Your task to perform on an android device: Show me popular videos on Youtube Image 0: 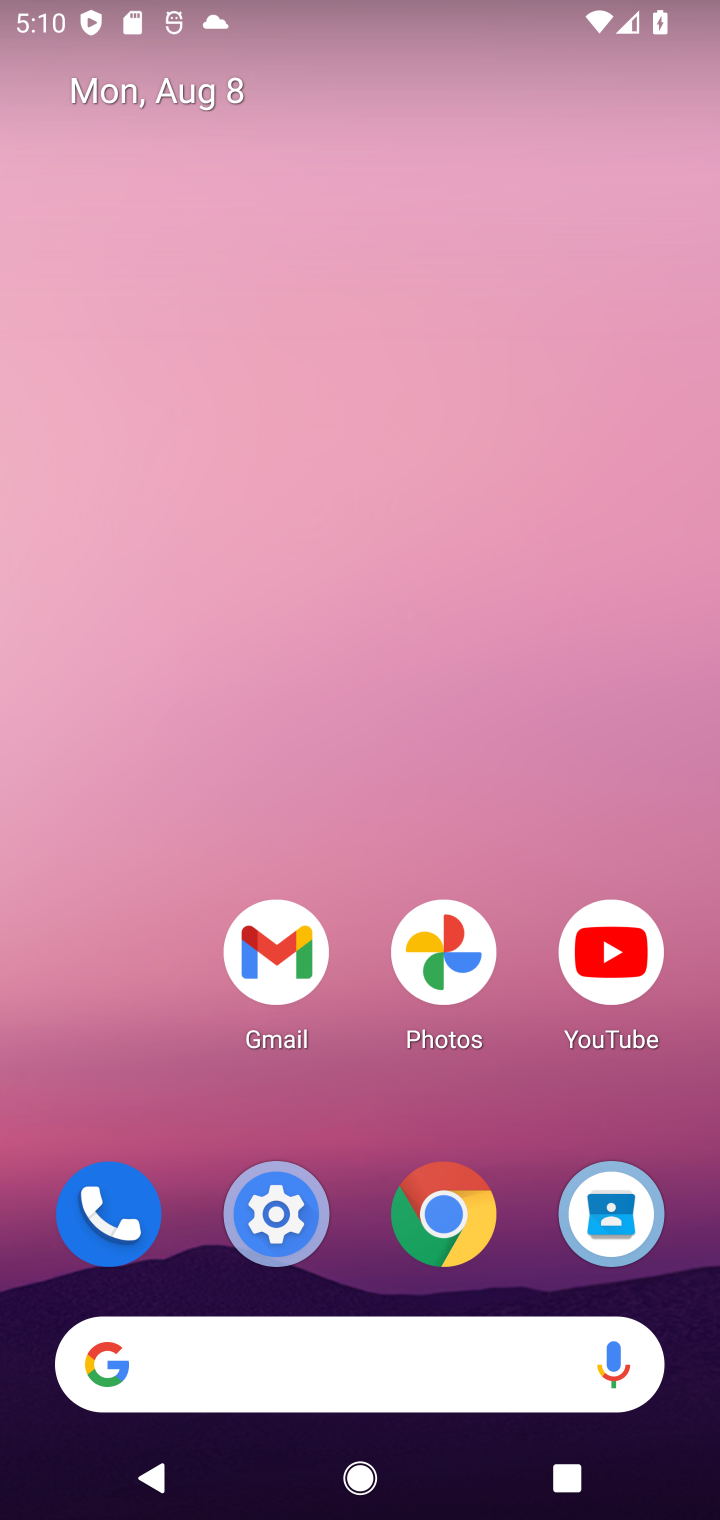
Step 0: drag from (377, 1263) to (372, 27)
Your task to perform on an android device: Show me popular videos on Youtube Image 1: 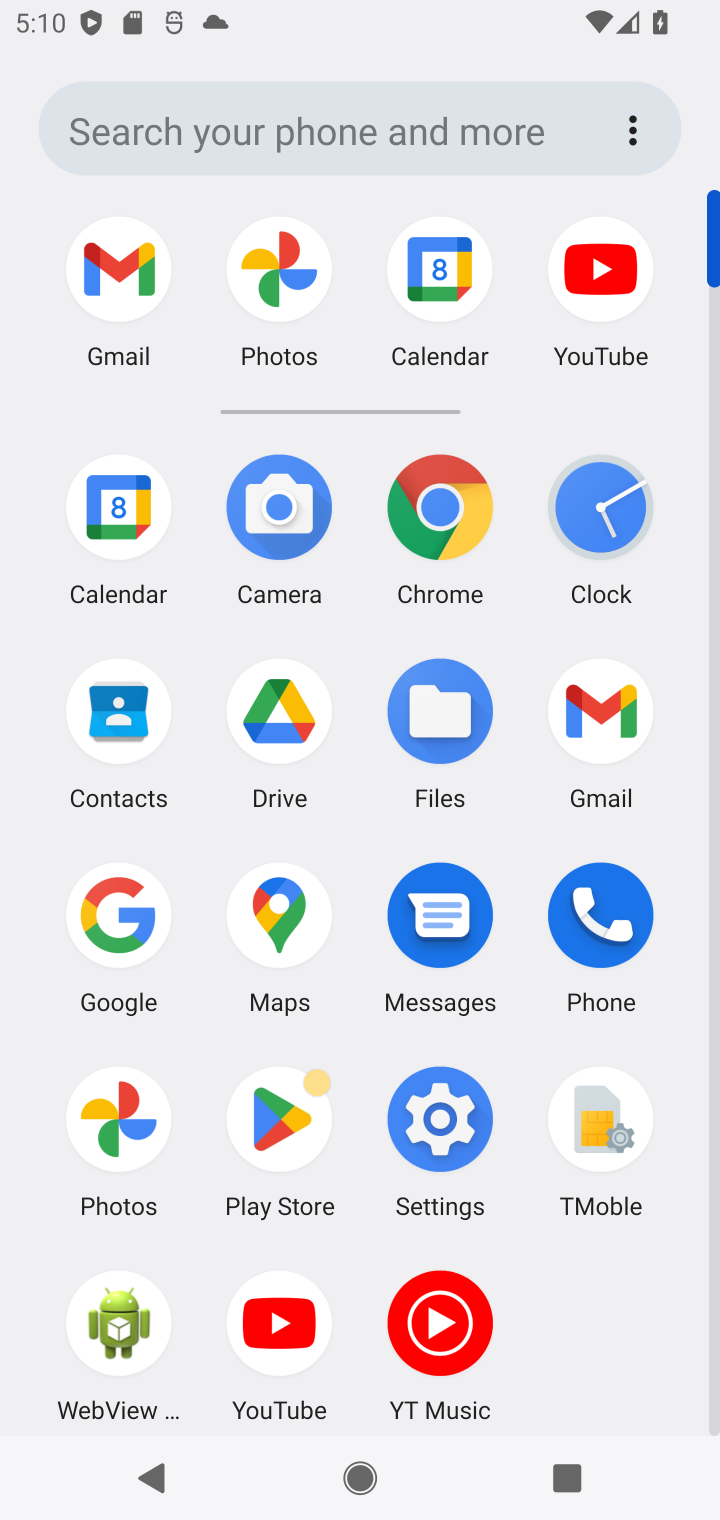
Step 1: click (288, 1313)
Your task to perform on an android device: Show me popular videos on Youtube Image 2: 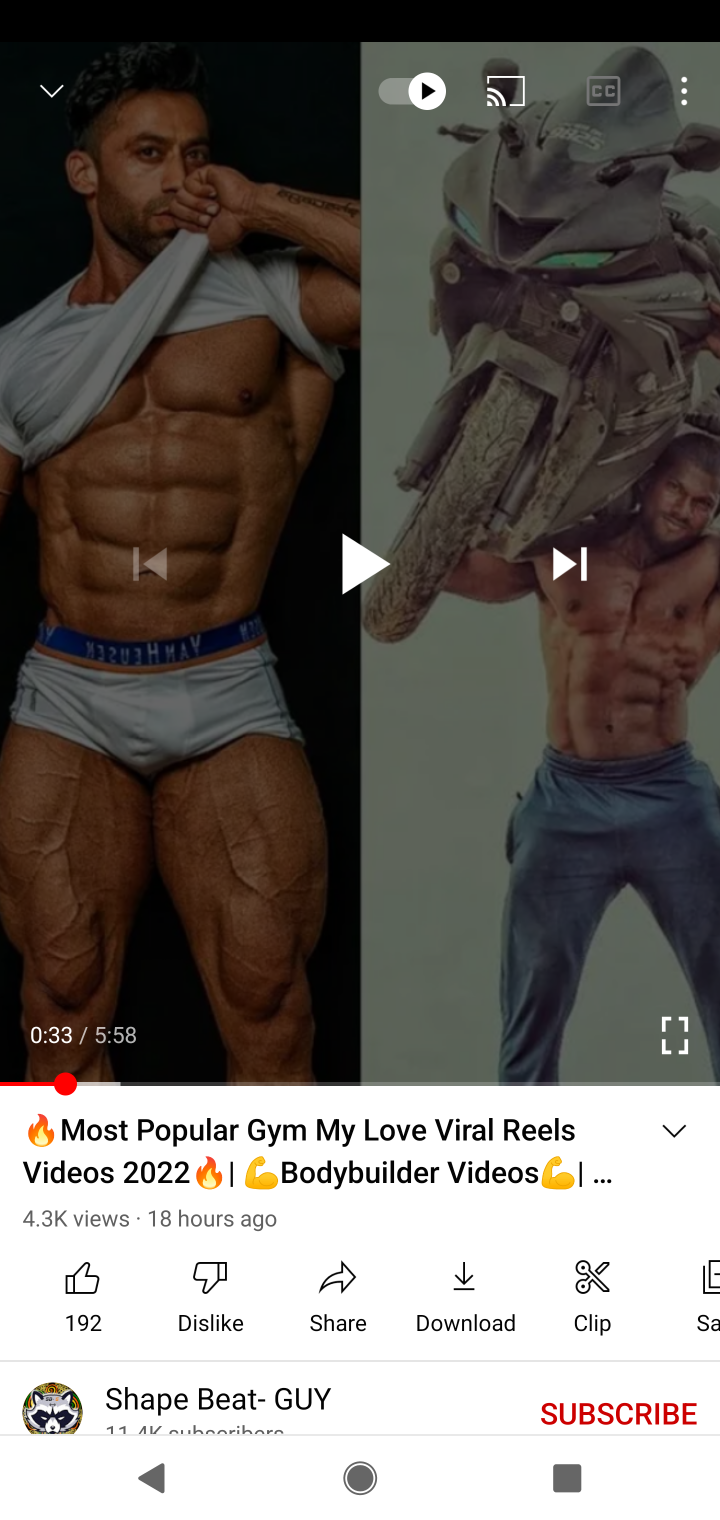
Step 2: task complete